Your task to perform on an android device: turn off translation in the chrome app Image 0: 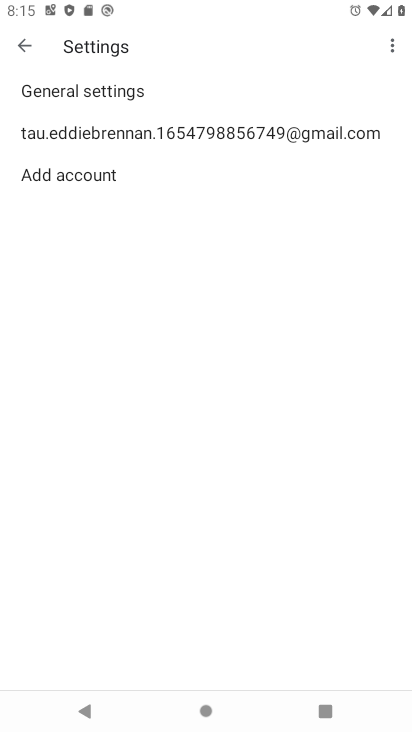
Step 0: press home button
Your task to perform on an android device: turn off translation in the chrome app Image 1: 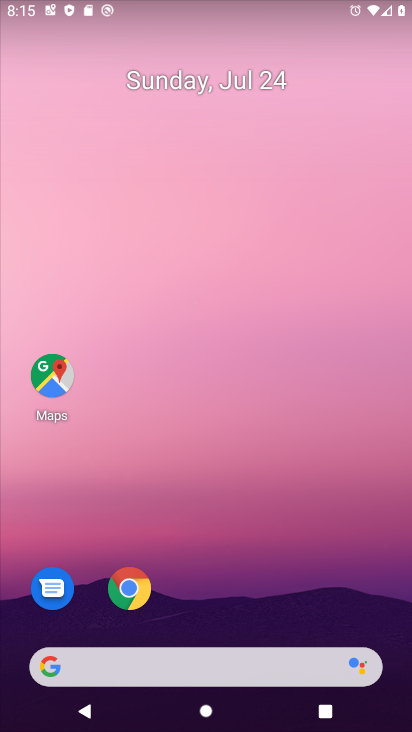
Step 1: drag from (204, 545) to (245, 7)
Your task to perform on an android device: turn off translation in the chrome app Image 2: 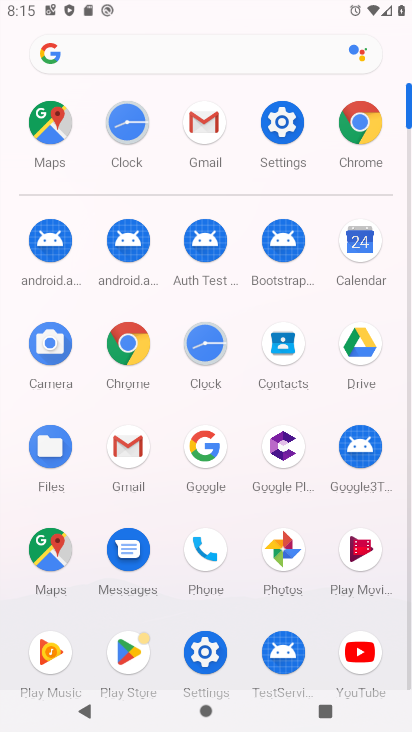
Step 2: click (370, 121)
Your task to perform on an android device: turn off translation in the chrome app Image 3: 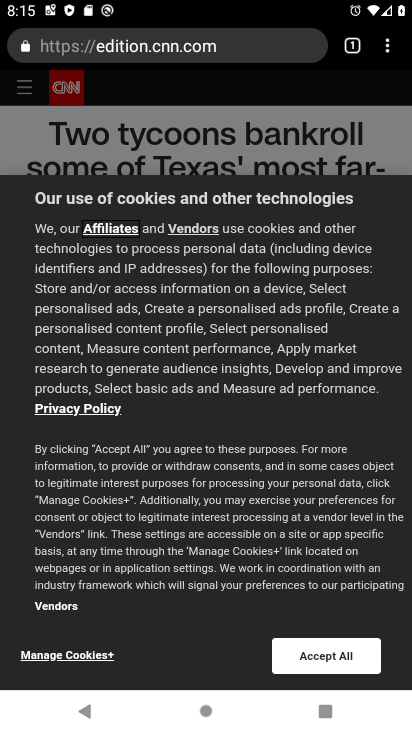
Step 3: drag from (383, 56) to (239, 513)
Your task to perform on an android device: turn off translation in the chrome app Image 4: 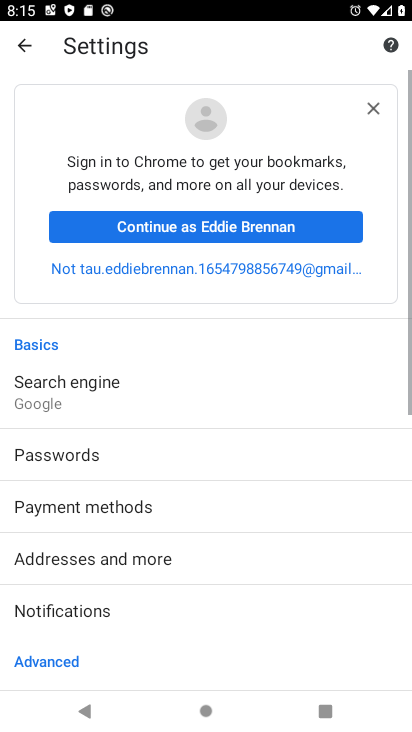
Step 4: drag from (232, 509) to (252, 10)
Your task to perform on an android device: turn off translation in the chrome app Image 5: 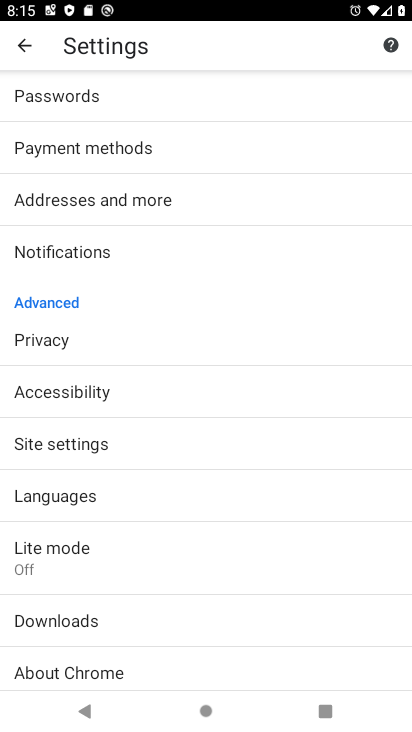
Step 5: click (47, 487)
Your task to perform on an android device: turn off translation in the chrome app Image 6: 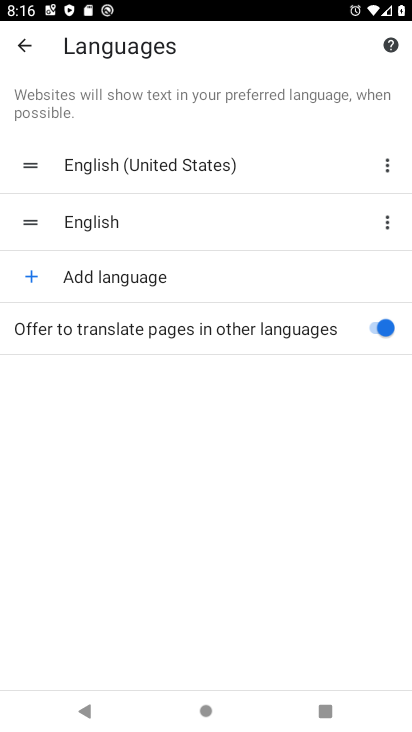
Step 6: click (362, 321)
Your task to perform on an android device: turn off translation in the chrome app Image 7: 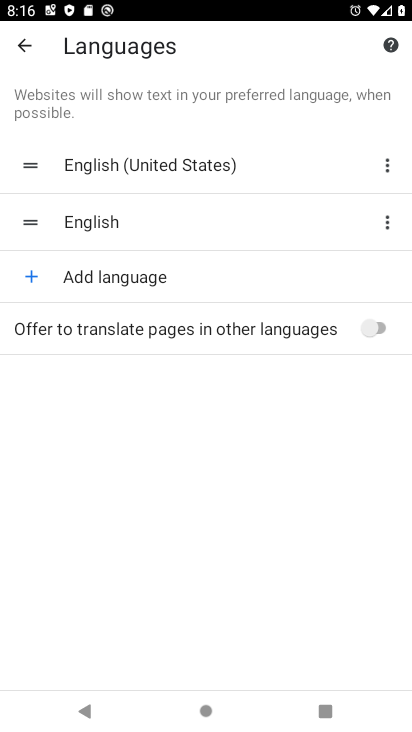
Step 7: task complete